Your task to perform on an android device: Go to Yahoo.com Image 0: 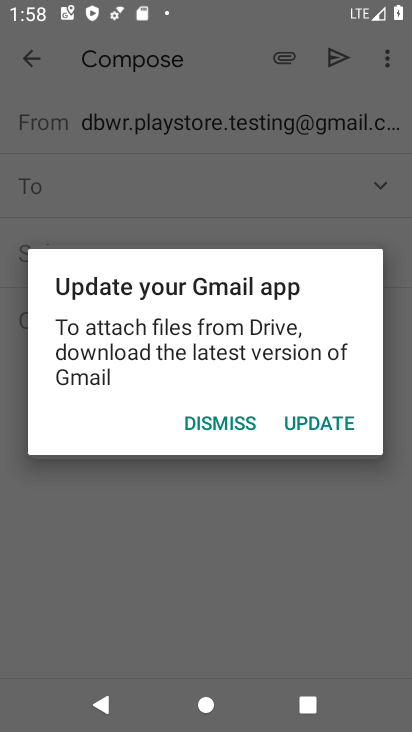
Step 0: press home button
Your task to perform on an android device: Go to Yahoo.com Image 1: 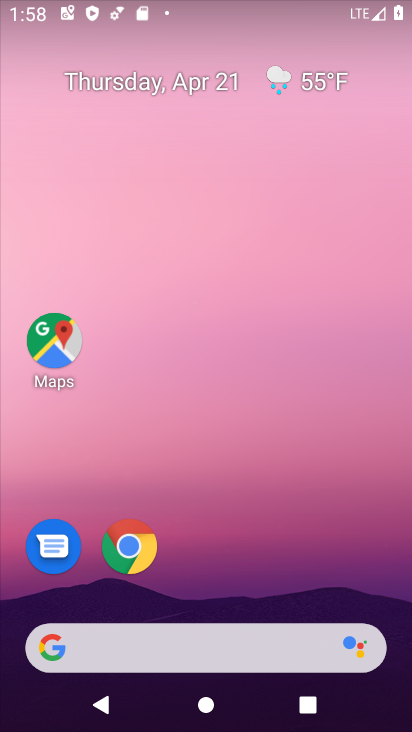
Step 1: click (126, 546)
Your task to perform on an android device: Go to Yahoo.com Image 2: 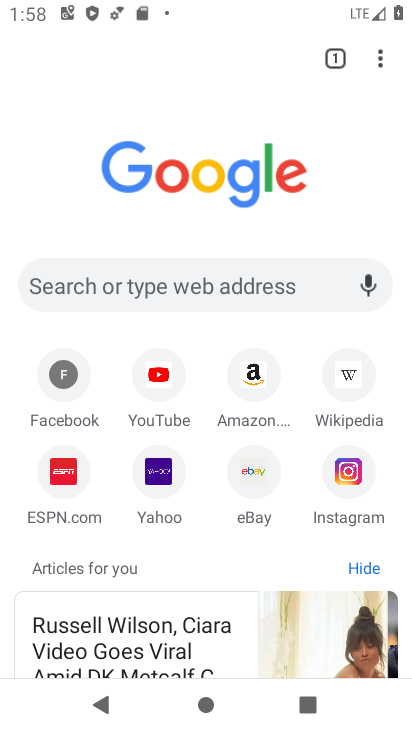
Step 2: click (157, 455)
Your task to perform on an android device: Go to Yahoo.com Image 3: 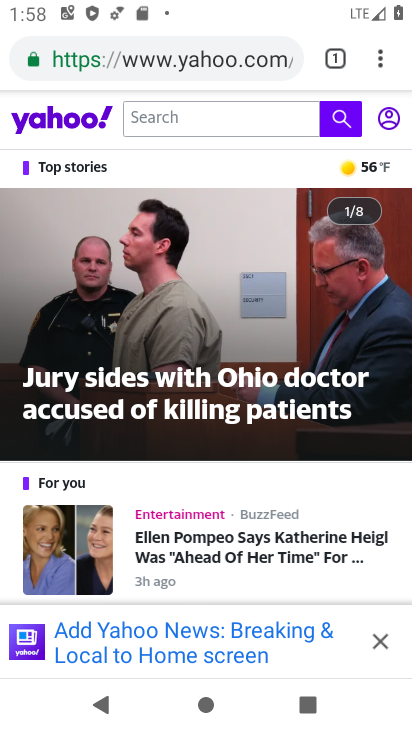
Step 3: task complete